Your task to perform on an android device: Search for Mexican restaurants on Maps Image 0: 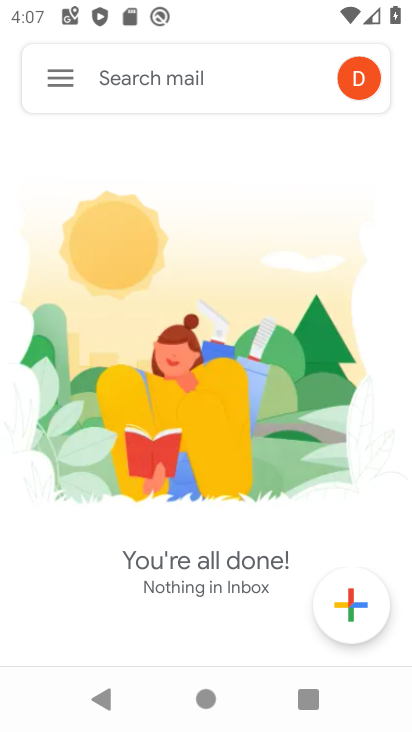
Step 0: click (206, 698)
Your task to perform on an android device: Search for Mexican restaurants on Maps Image 1: 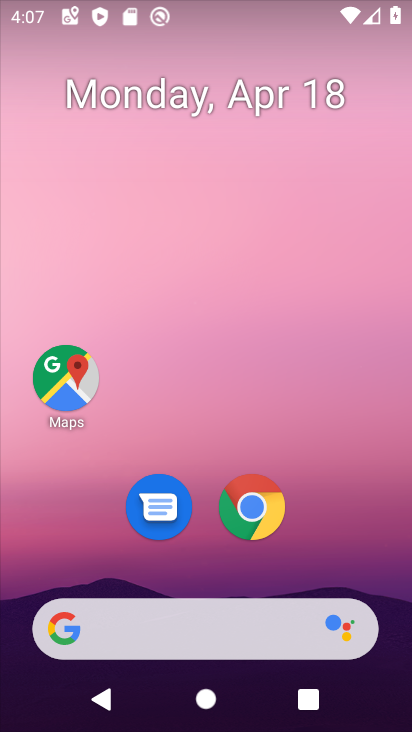
Step 1: click (77, 377)
Your task to perform on an android device: Search for Mexican restaurants on Maps Image 2: 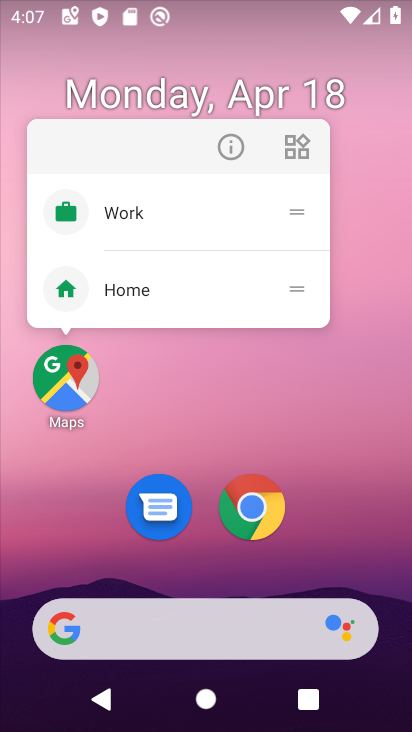
Step 2: click (77, 371)
Your task to perform on an android device: Search for Mexican restaurants on Maps Image 3: 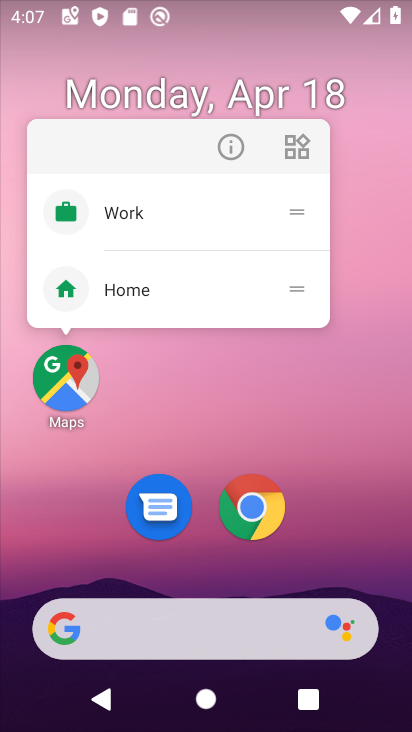
Step 3: click (76, 371)
Your task to perform on an android device: Search for Mexican restaurants on Maps Image 4: 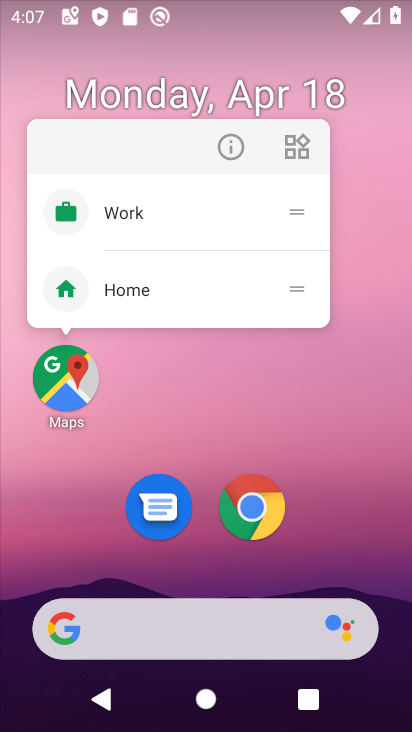
Step 4: click (76, 371)
Your task to perform on an android device: Search for Mexican restaurants on Maps Image 5: 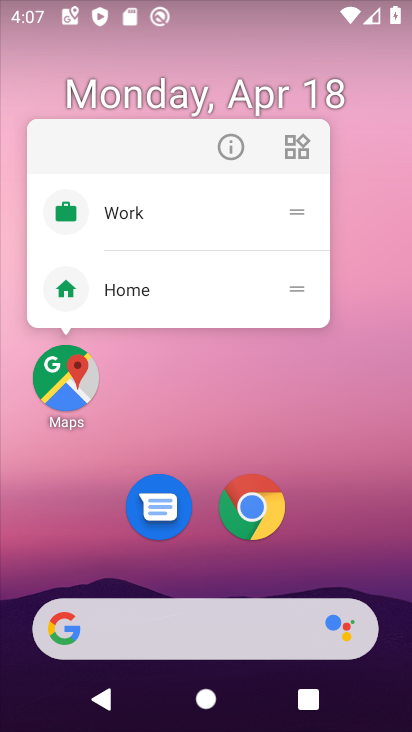
Step 5: click (76, 371)
Your task to perform on an android device: Search for Mexican restaurants on Maps Image 6: 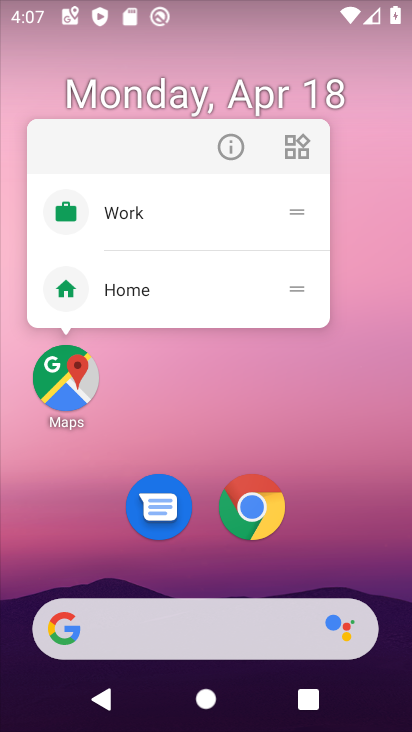
Step 6: click (76, 371)
Your task to perform on an android device: Search for Mexican restaurants on Maps Image 7: 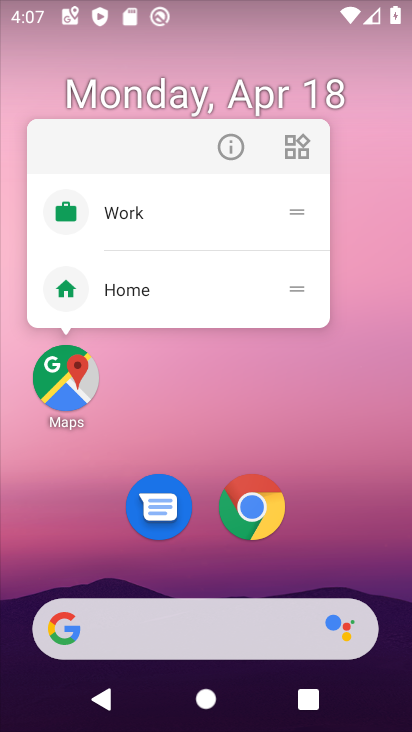
Step 7: click (76, 371)
Your task to perform on an android device: Search for Mexican restaurants on Maps Image 8: 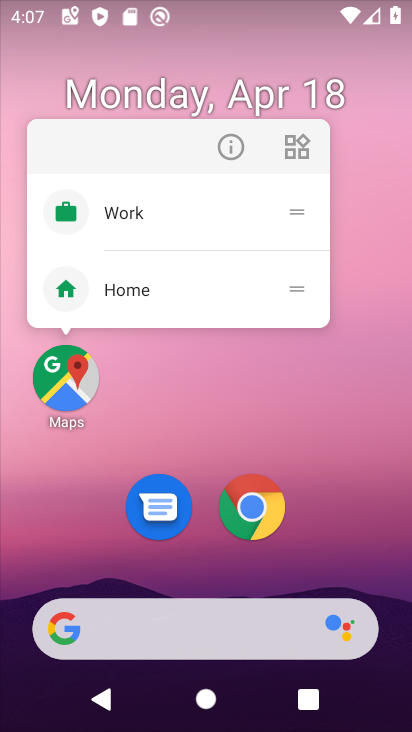
Step 8: click (76, 371)
Your task to perform on an android device: Search for Mexican restaurants on Maps Image 9: 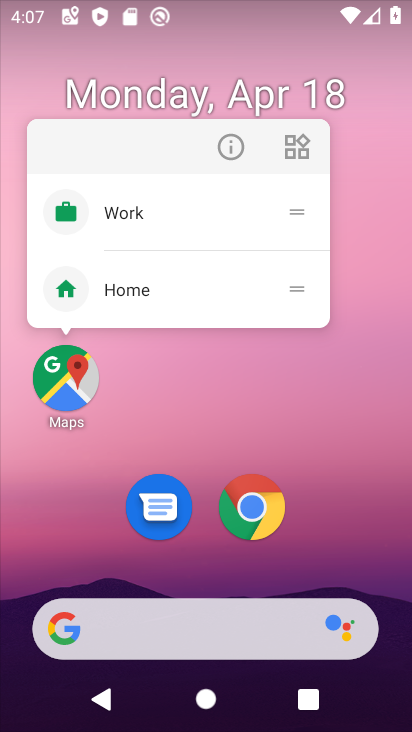
Step 9: click (76, 371)
Your task to perform on an android device: Search for Mexican restaurants on Maps Image 10: 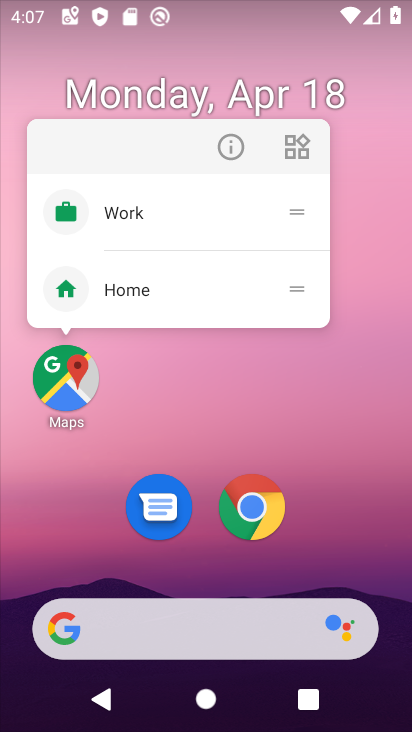
Step 10: click (76, 371)
Your task to perform on an android device: Search for Mexican restaurants on Maps Image 11: 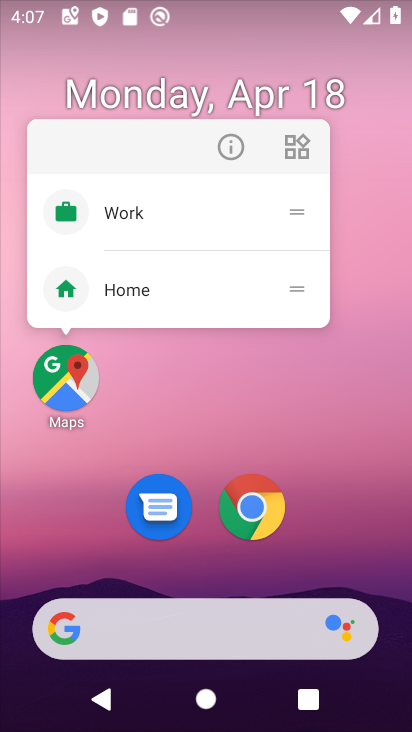
Step 11: click (76, 371)
Your task to perform on an android device: Search for Mexican restaurants on Maps Image 12: 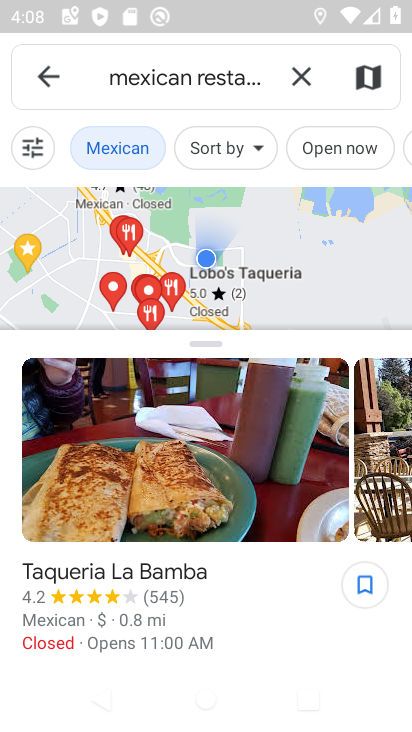
Step 12: task complete